Your task to perform on an android device: turn off priority inbox in the gmail app Image 0: 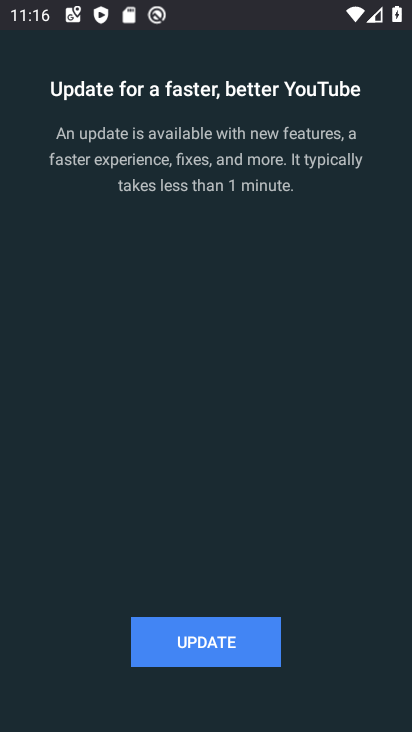
Step 0: press home button
Your task to perform on an android device: turn off priority inbox in the gmail app Image 1: 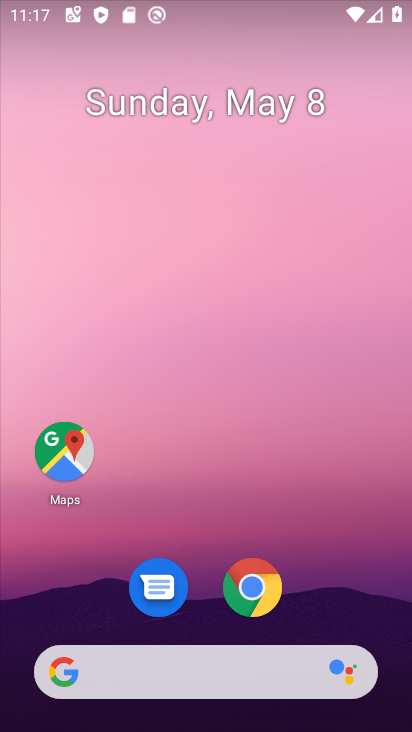
Step 1: drag from (399, 649) to (64, 14)
Your task to perform on an android device: turn off priority inbox in the gmail app Image 2: 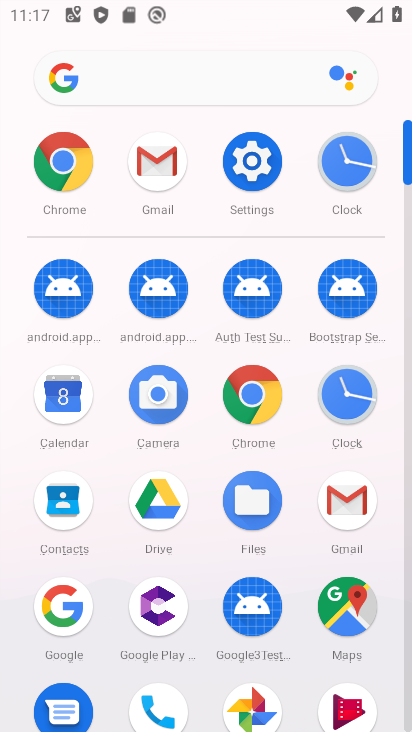
Step 2: click (343, 510)
Your task to perform on an android device: turn off priority inbox in the gmail app Image 3: 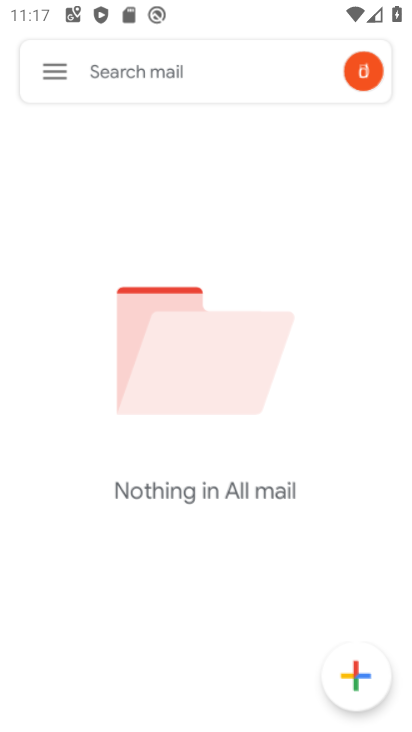
Step 3: click (342, 506)
Your task to perform on an android device: turn off priority inbox in the gmail app Image 4: 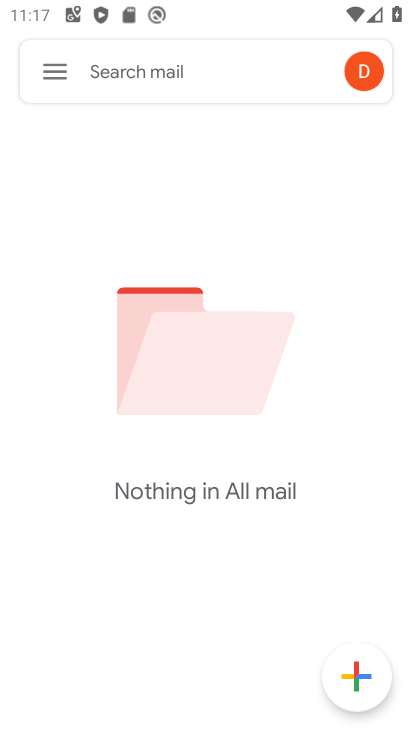
Step 4: click (48, 66)
Your task to perform on an android device: turn off priority inbox in the gmail app Image 5: 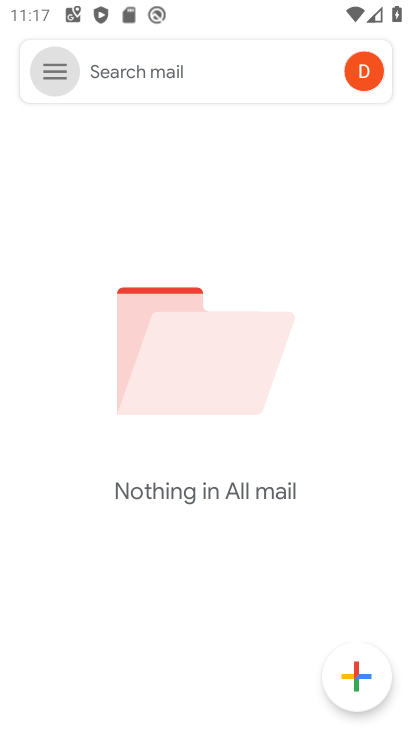
Step 5: click (48, 66)
Your task to perform on an android device: turn off priority inbox in the gmail app Image 6: 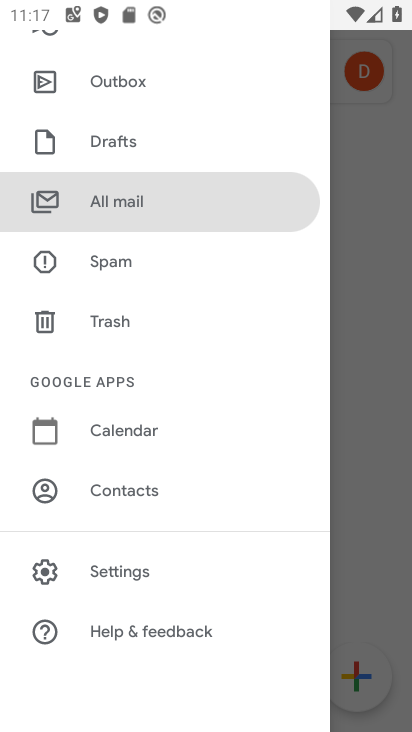
Step 6: click (115, 571)
Your task to perform on an android device: turn off priority inbox in the gmail app Image 7: 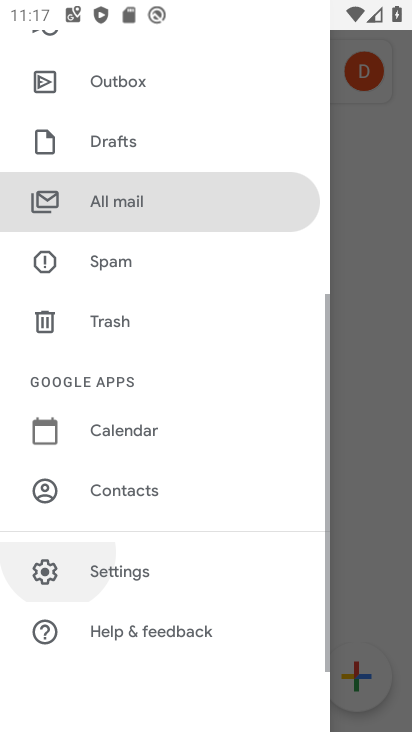
Step 7: click (115, 571)
Your task to perform on an android device: turn off priority inbox in the gmail app Image 8: 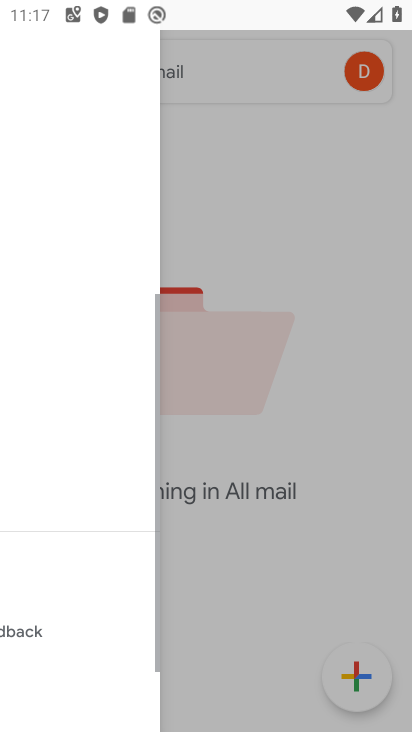
Step 8: click (115, 571)
Your task to perform on an android device: turn off priority inbox in the gmail app Image 9: 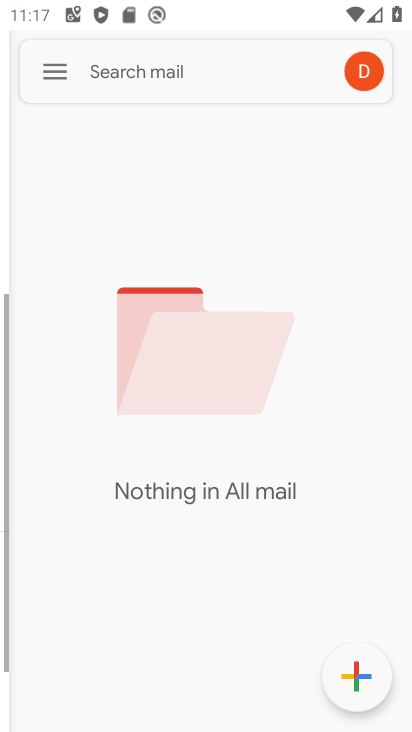
Step 9: click (115, 571)
Your task to perform on an android device: turn off priority inbox in the gmail app Image 10: 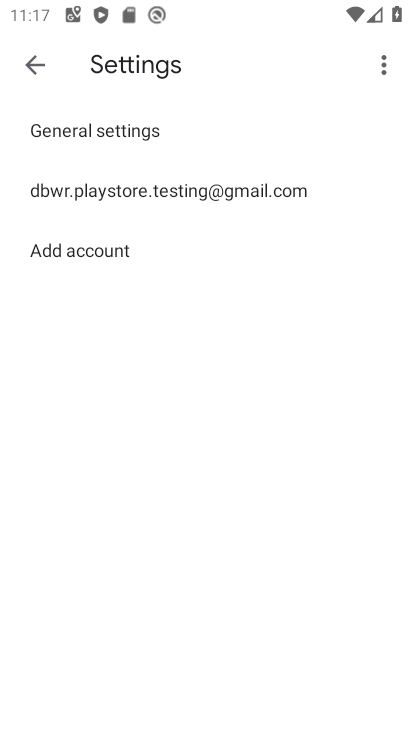
Step 10: click (145, 184)
Your task to perform on an android device: turn off priority inbox in the gmail app Image 11: 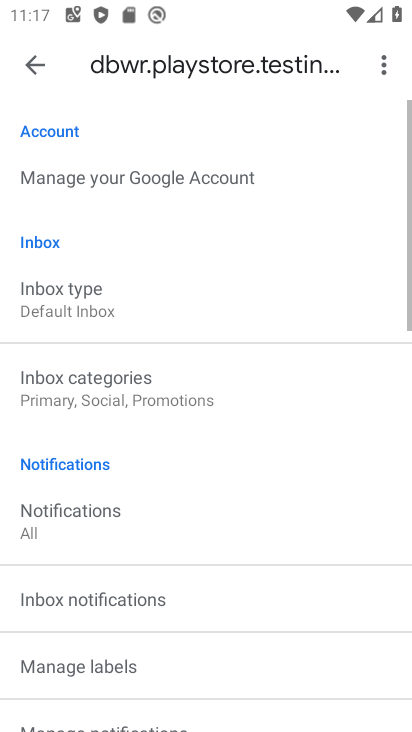
Step 11: drag from (152, 554) to (84, 42)
Your task to perform on an android device: turn off priority inbox in the gmail app Image 12: 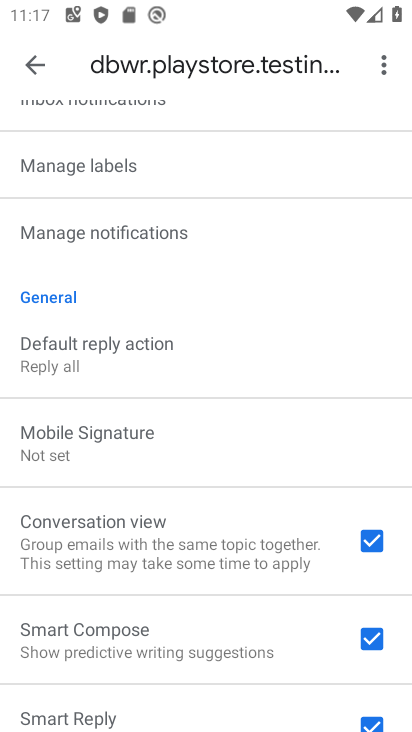
Step 12: drag from (100, 250) to (246, 692)
Your task to perform on an android device: turn off priority inbox in the gmail app Image 13: 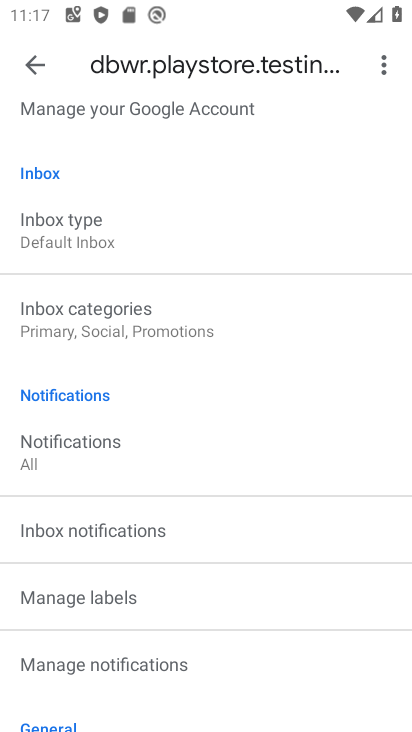
Step 13: drag from (66, 176) to (148, 611)
Your task to perform on an android device: turn off priority inbox in the gmail app Image 14: 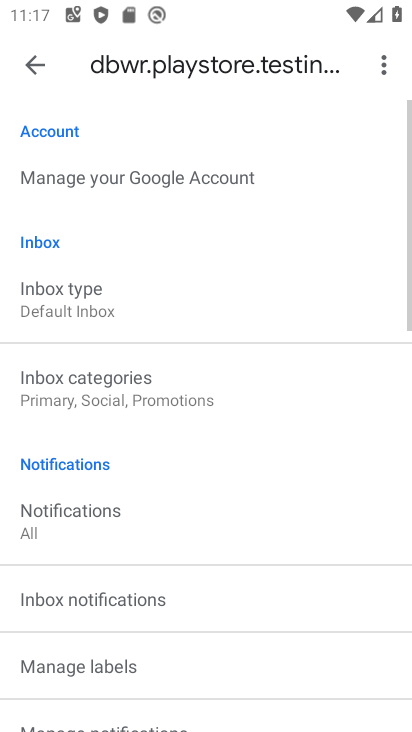
Step 14: drag from (136, 227) to (226, 610)
Your task to perform on an android device: turn off priority inbox in the gmail app Image 15: 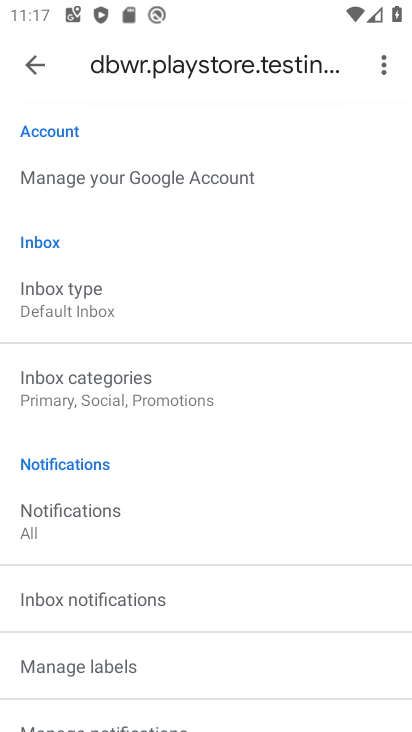
Step 15: click (57, 287)
Your task to perform on an android device: turn off priority inbox in the gmail app Image 16: 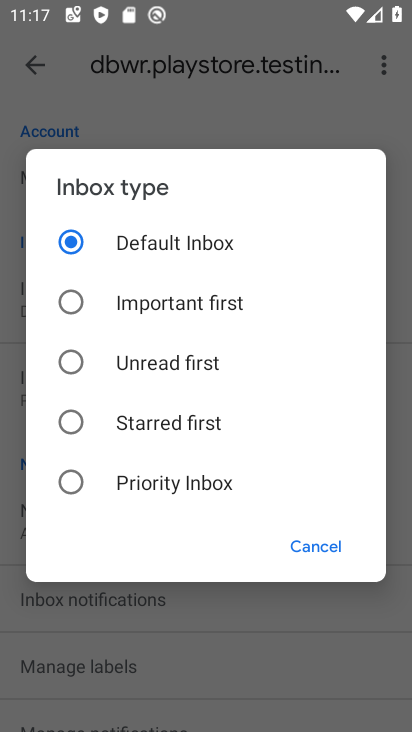
Step 16: click (64, 488)
Your task to perform on an android device: turn off priority inbox in the gmail app Image 17: 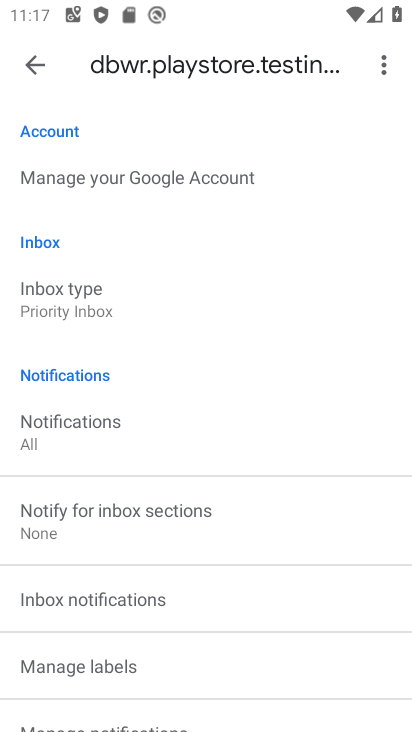
Step 17: task complete